Your task to perform on an android device: see tabs open on other devices in the chrome app Image 0: 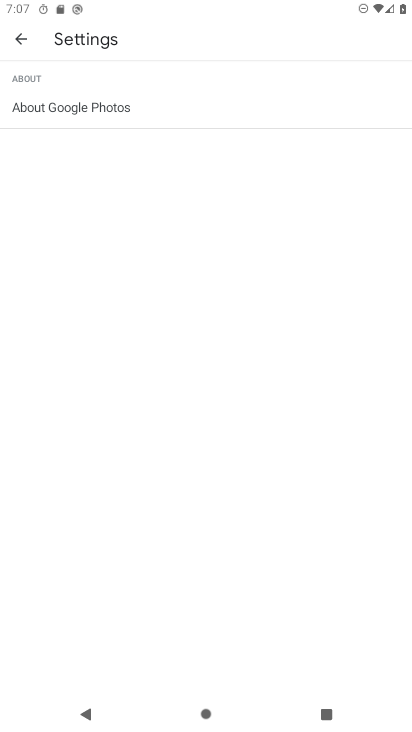
Step 0: press home button
Your task to perform on an android device: see tabs open on other devices in the chrome app Image 1: 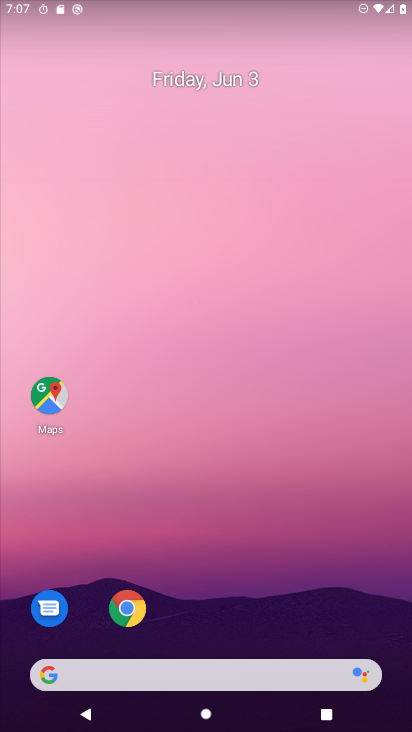
Step 1: click (129, 616)
Your task to perform on an android device: see tabs open on other devices in the chrome app Image 2: 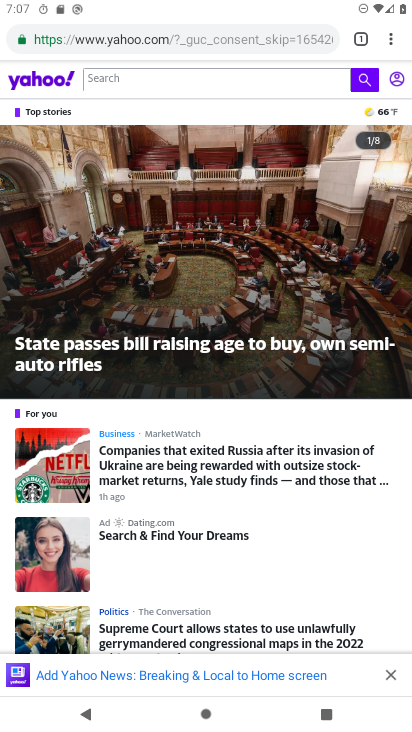
Step 2: click (391, 40)
Your task to perform on an android device: see tabs open on other devices in the chrome app Image 3: 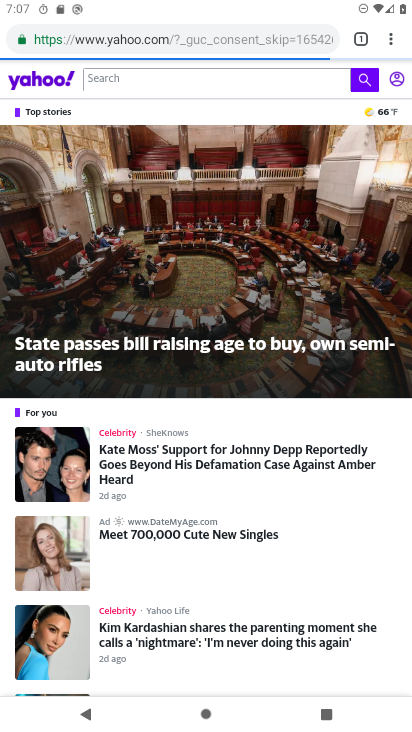
Step 3: click (395, 41)
Your task to perform on an android device: see tabs open on other devices in the chrome app Image 4: 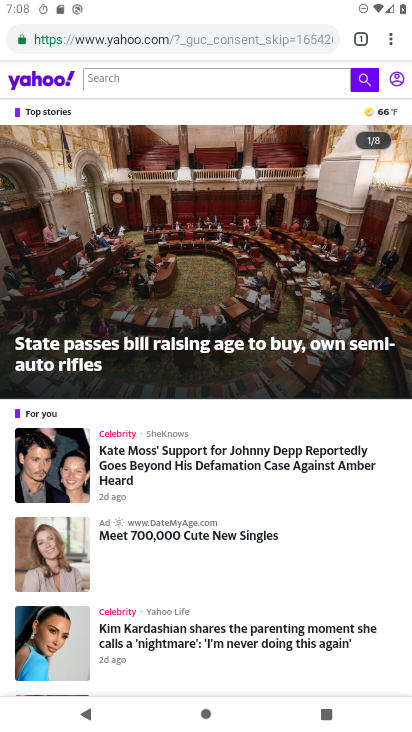
Step 4: click (385, 34)
Your task to perform on an android device: see tabs open on other devices in the chrome app Image 5: 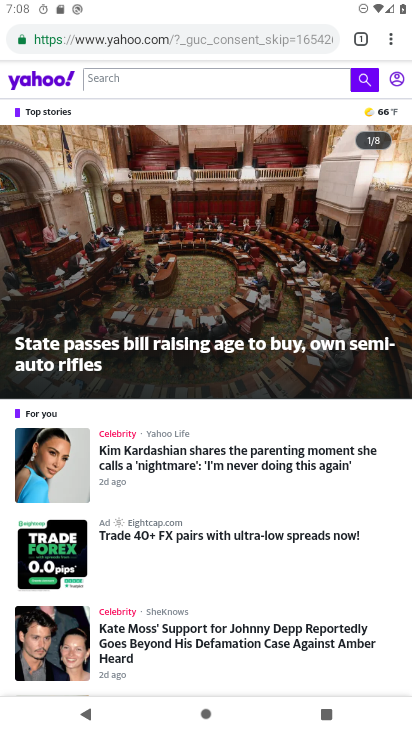
Step 5: click (382, 37)
Your task to perform on an android device: see tabs open on other devices in the chrome app Image 6: 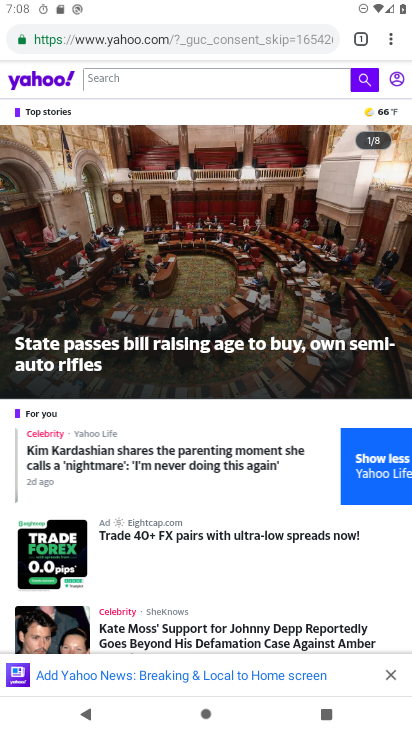
Step 6: click (385, 24)
Your task to perform on an android device: see tabs open on other devices in the chrome app Image 7: 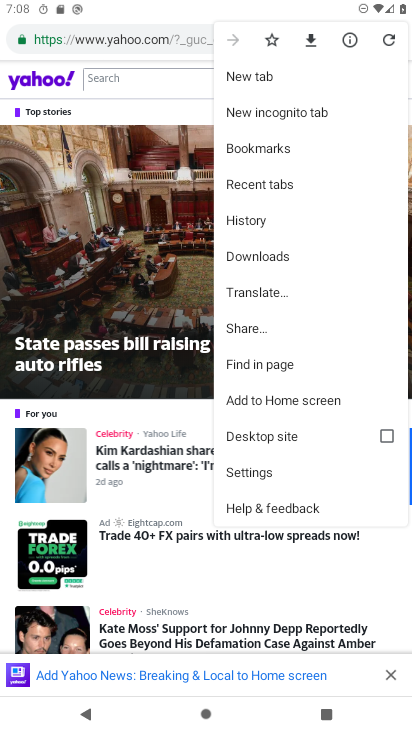
Step 7: click (268, 186)
Your task to perform on an android device: see tabs open on other devices in the chrome app Image 8: 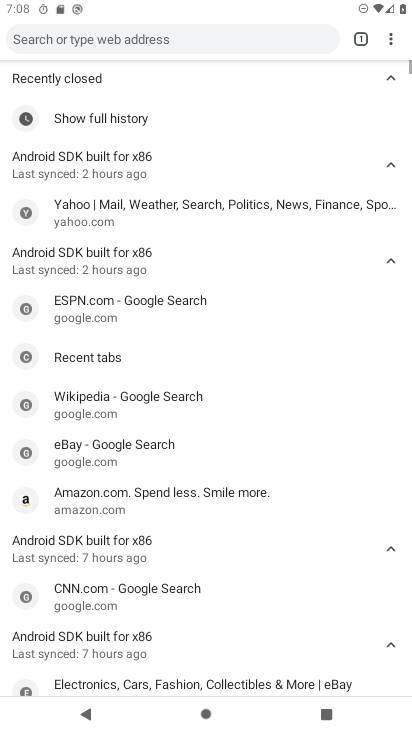
Step 8: task complete